Your task to perform on an android device: refresh tabs in the chrome app Image 0: 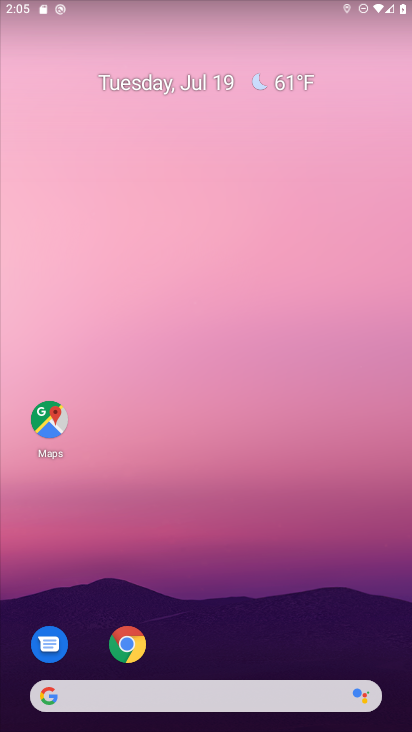
Step 0: click (132, 661)
Your task to perform on an android device: refresh tabs in the chrome app Image 1: 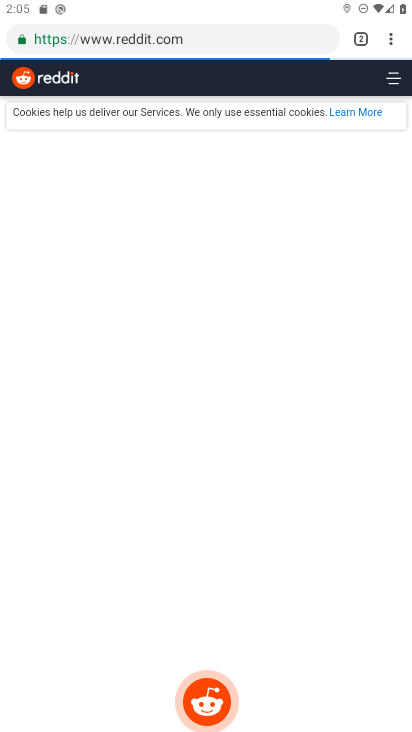
Step 1: click (395, 34)
Your task to perform on an android device: refresh tabs in the chrome app Image 2: 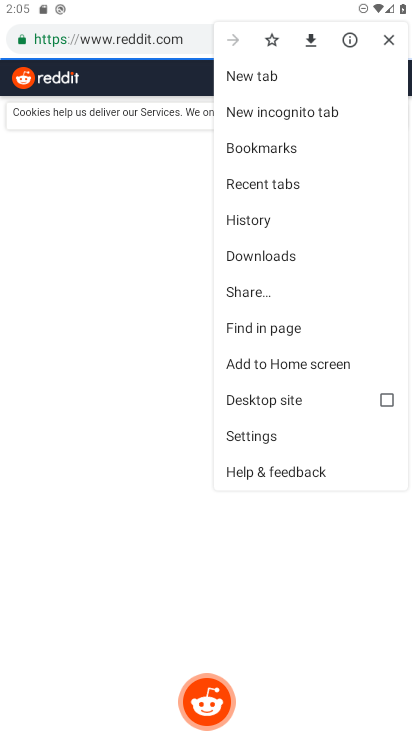
Step 2: click (175, 181)
Your task to perform on an android device: refresh tabs in the chrome app Image 3: 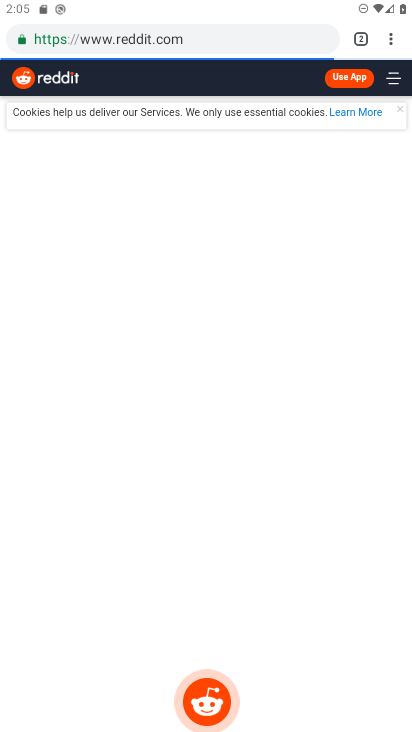
Step 3: drag from (390, 35) to (411, 143)
Your task to perform on an android device: refresh tabs in the chrome app Image 4: 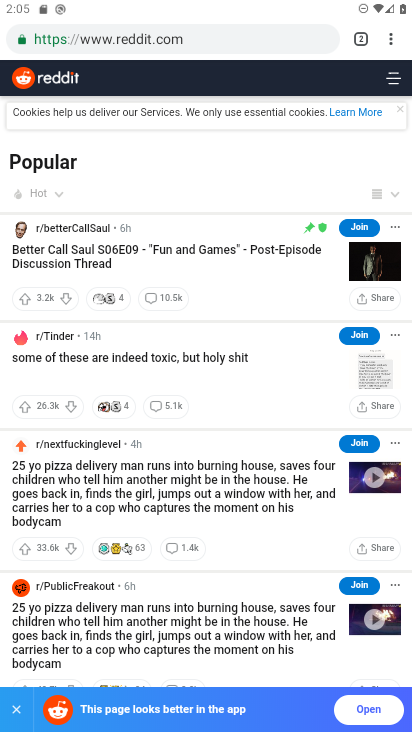
Step 4: click (393, 38)
Your task to perform on an android device: refresh tabs in the chrome app Image 5: 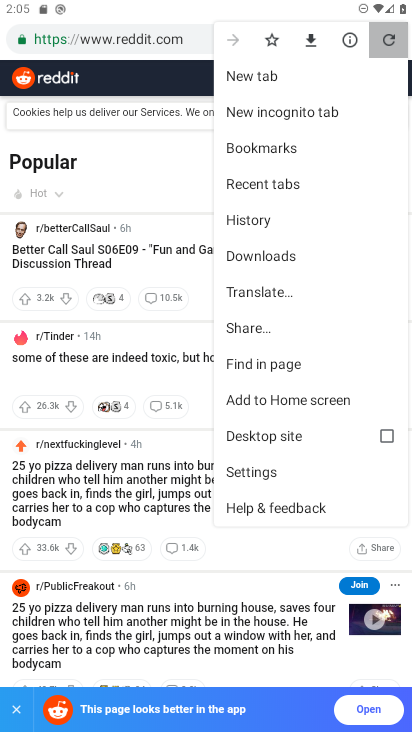
Step 5: click (393, 39)
Your task to perform on an android device: refresh tabs in the chrome app Image 6: 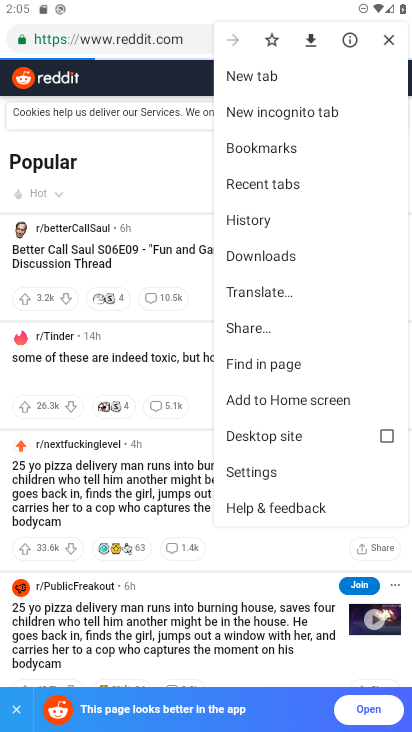
Step 6: task complete